Your task to perform on an android device: toggle location history Image 0: 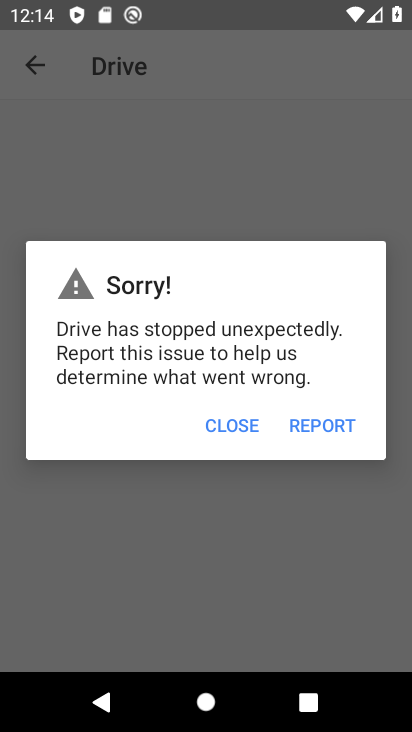
Step 0: press home button
Your task to perform on an android device: toggle location history Image 1: 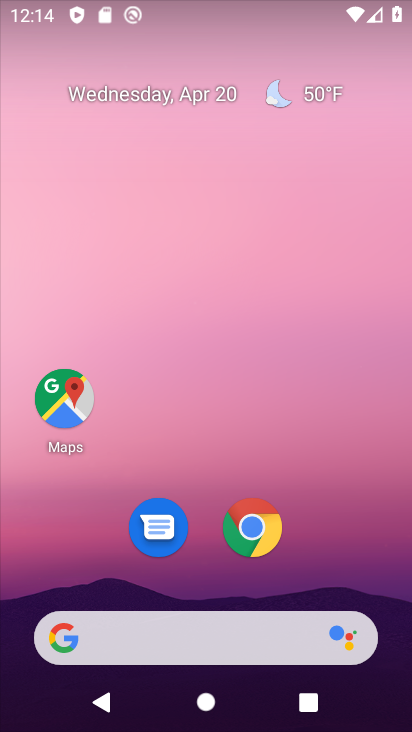
Step 1: click (63, 403)
Your task to perform on an android device: toggle location history Image 2: 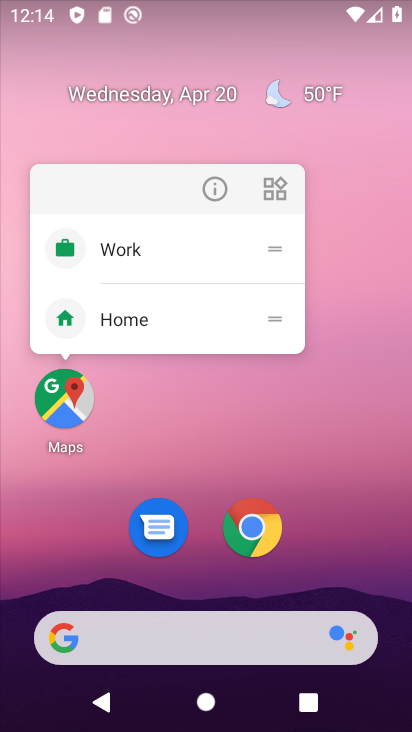
Step 2: click (63, 403)
Your task to perform on an android device: toggle location history Image 3: 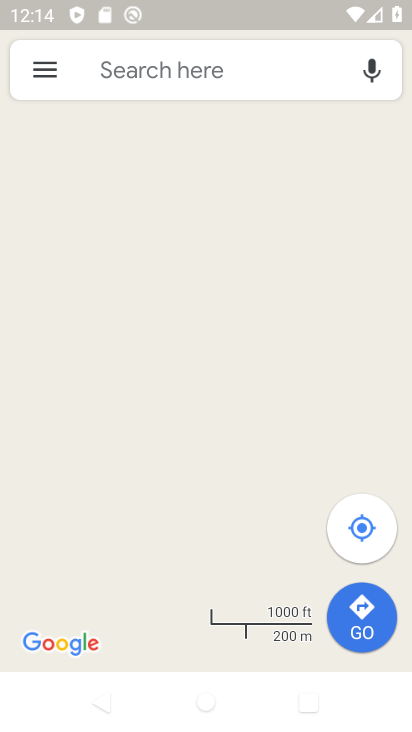
Step 3: click (55, 68)
Your task to perform on an android device: toggle location history Image 4: 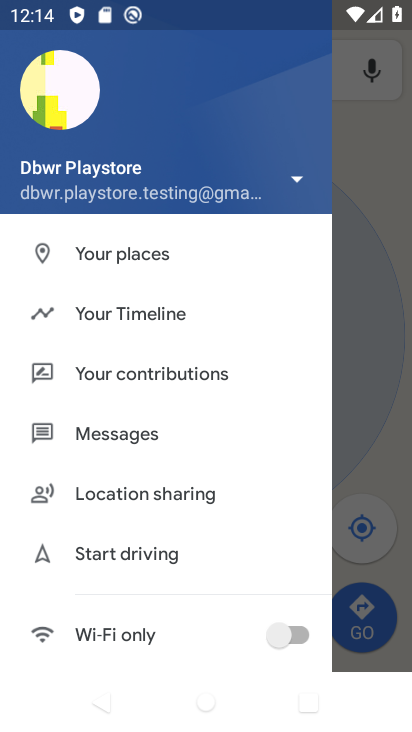
Step 4: click (128, 310)
Your task to perform on an android device: toggle location history Image 5: 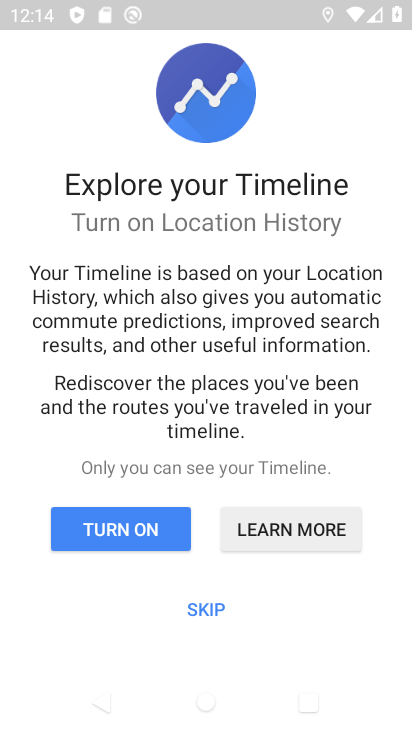
Step 5: click (207, 601)
Your task to perform on an android device: toggle location history Image 6: 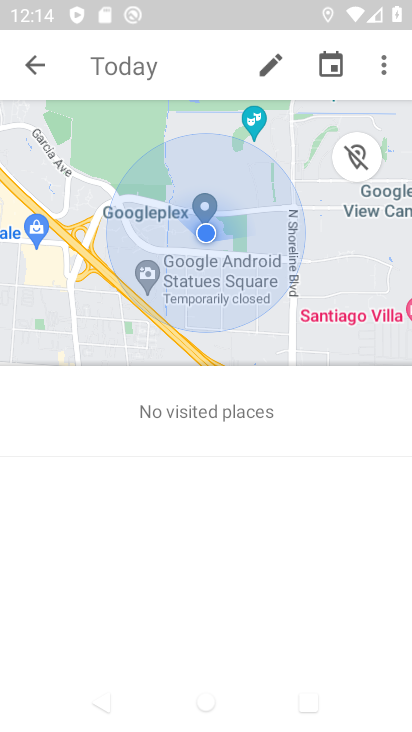
Step 6: click (386, 64)
Your task to perform on an android device: toggle location history Image 7: 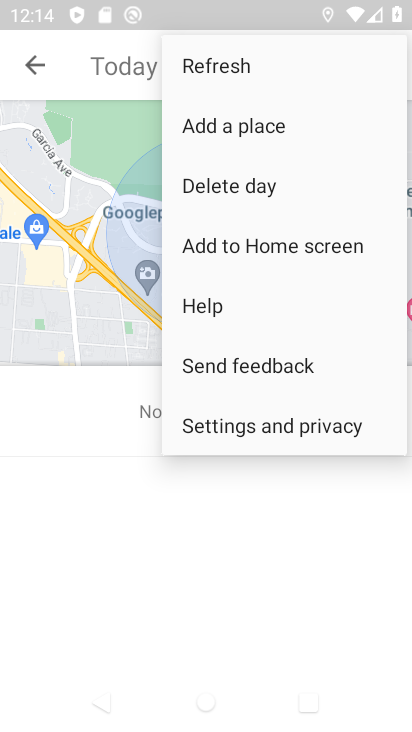
Step 7: click (245, 435)
Your task to perform on an android device: toggle location history Image 8: 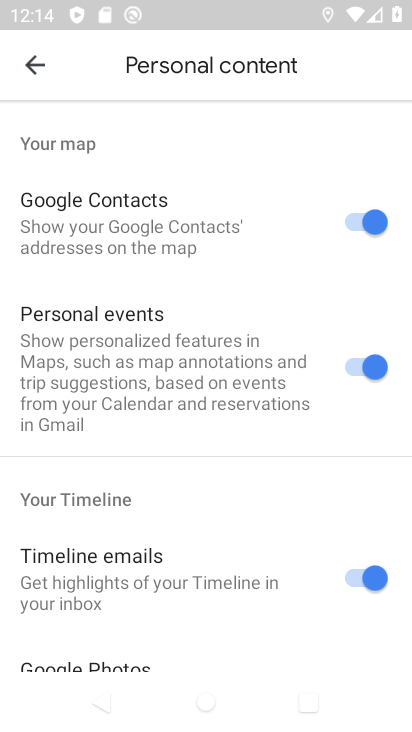
Step 8: drag from (158, 511) to (169, 43)
Your task to perform on an android device: toggle location history Image 9: 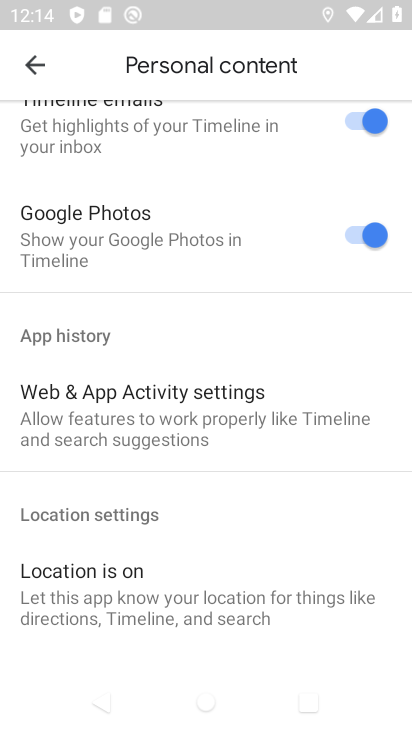
Step 9: drag from (210, 438) to (157, 3)
Your task to perform on an android device: toggle location history Image 10: 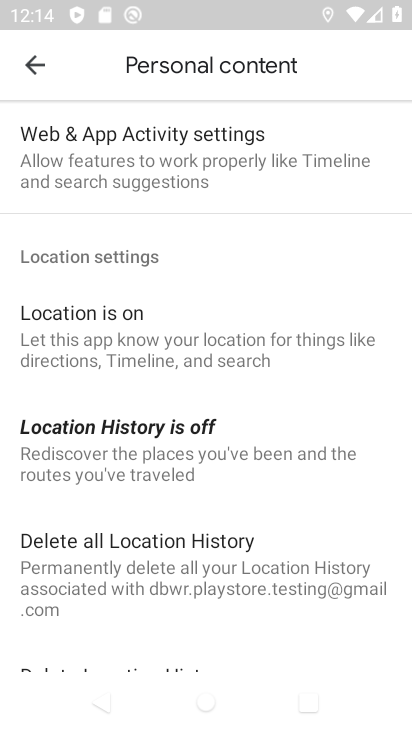
Step 10: click (127, 439)
Your task to perform on an android device: toggle location history Image 11: 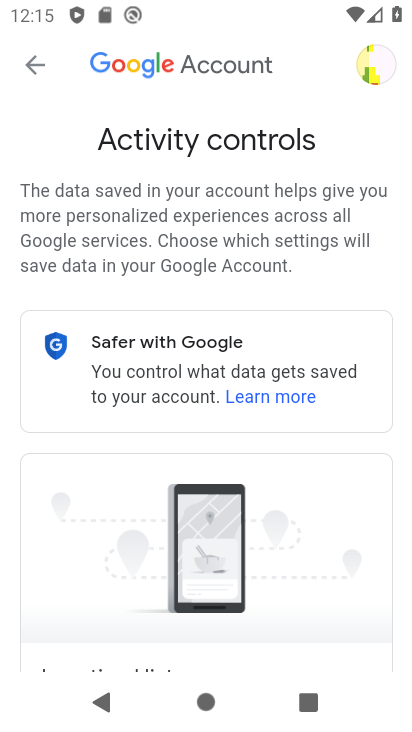
Step 11: drag from (209, 534) to (209, 154)
Your task to perform on an android device: toggle location history Image 12: 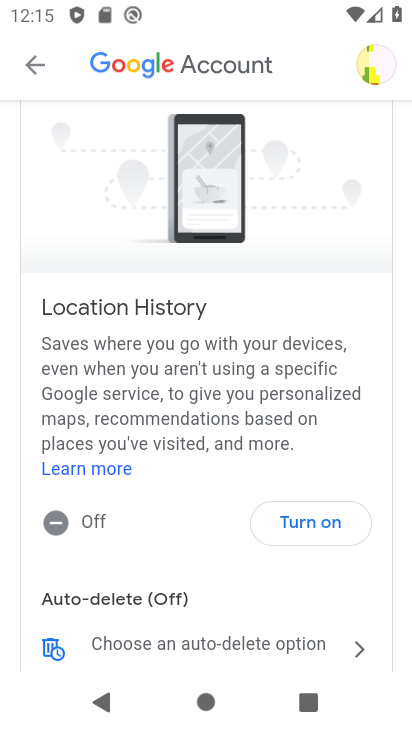
Step 12: click (336, 526)
Your task to perform on an android device: toggle location history Image 13: 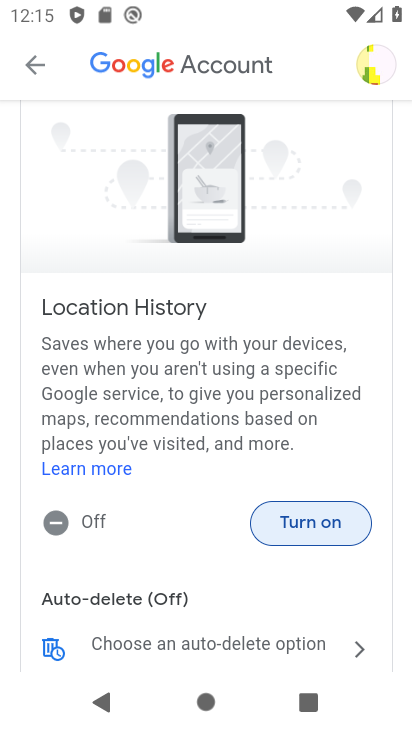
Step 13: click (291, 530)
Your task to perform on an android device: toggle location history Image 14: 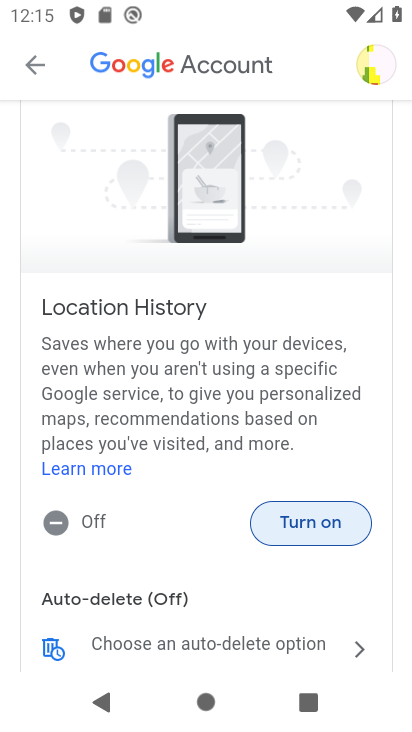
Step 14: click (313, 520)
Your task to perform on an android device: toggle location history Image 15: 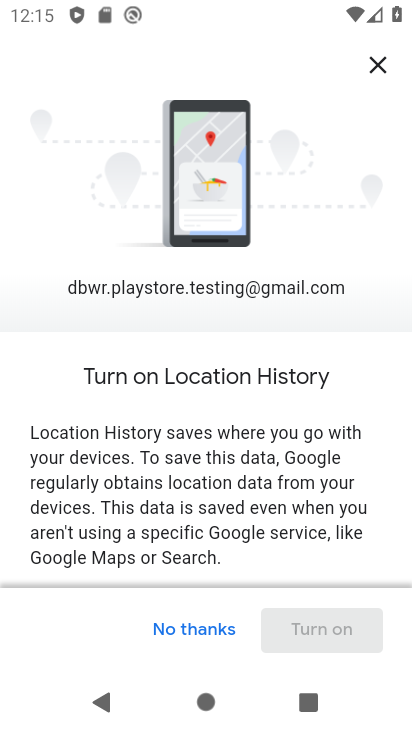
Step 15: drag from (299, 545) to (277, 21)
Your task to perform on an android device: toggle location history Image 16: 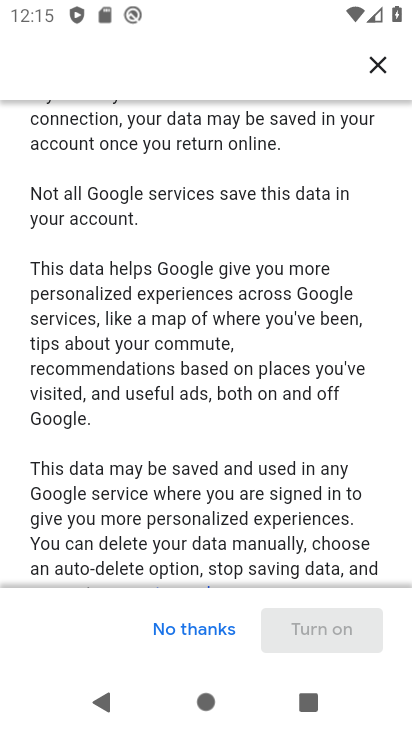
Step 16: drag from (179, 533) to (181, 38)
Your task to perform on an android device: toggle location history Image 17: 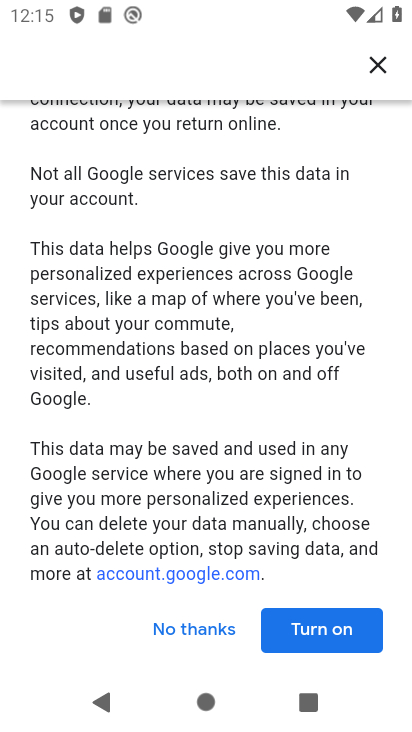
Step 17: click (327, 642)
Your task to perform on an android device: toggle location history Image 18: 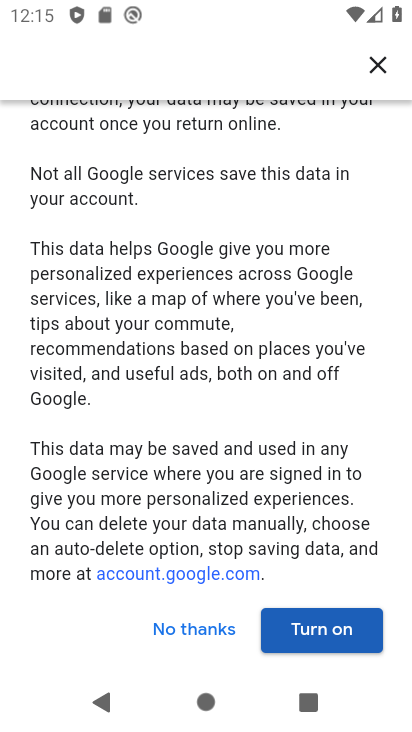
Step 18: click (324, 634)
Your task to perform on an android device: toggle location history Image 19: 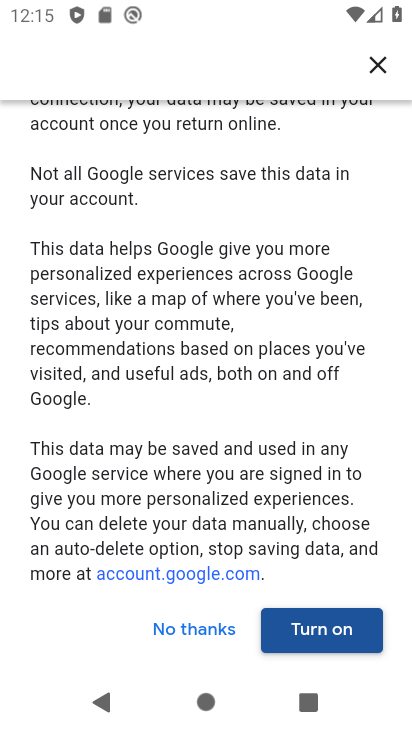
Step 19: drag from (137, 548) to (136, 300)
Your task to perform on an android device: toggle location history Image 20: 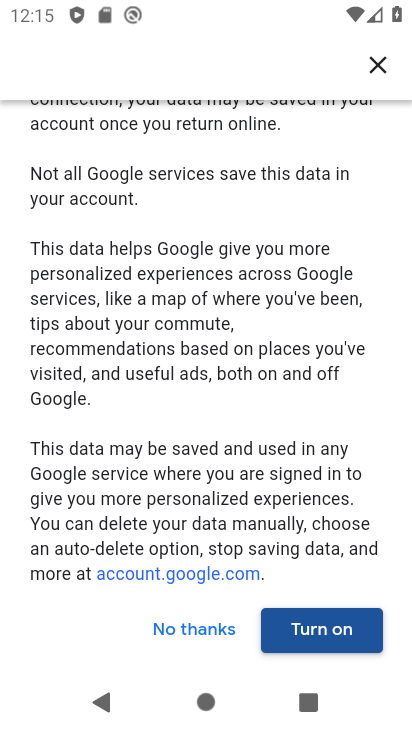
Step 20: click (312, 629)
Your task to perform on an android device: toggle location history Image 21: 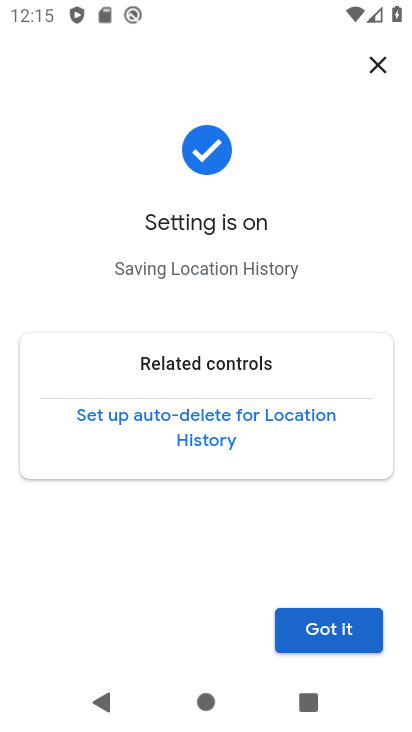
Step 21: click (332, 639)
Your task to perform on an android device: toggle location history Image 22: 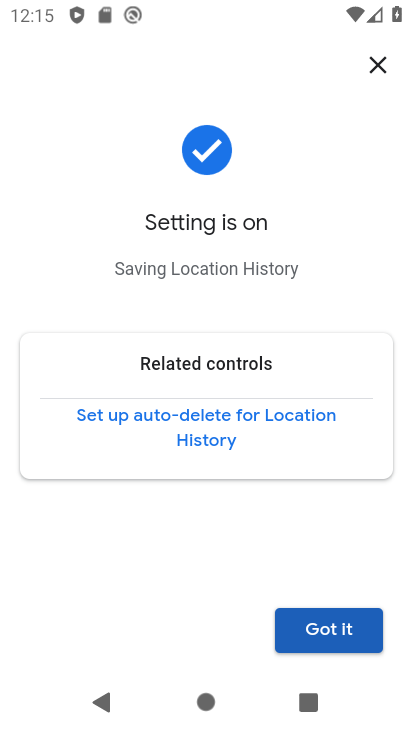
Step 22: click (318, 634)
Your task to perform on an android device: toggle location history Image 23: 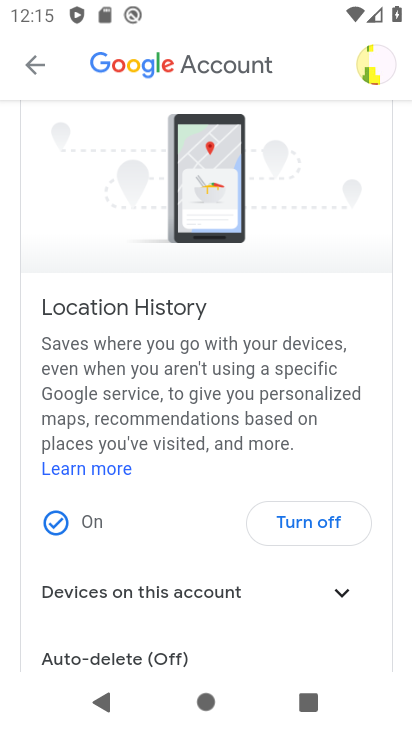
Step 23: task complete